Your task to perform on an android device: Add "razer huntsman" to the cart on walmart, then select checkout. Image 0: 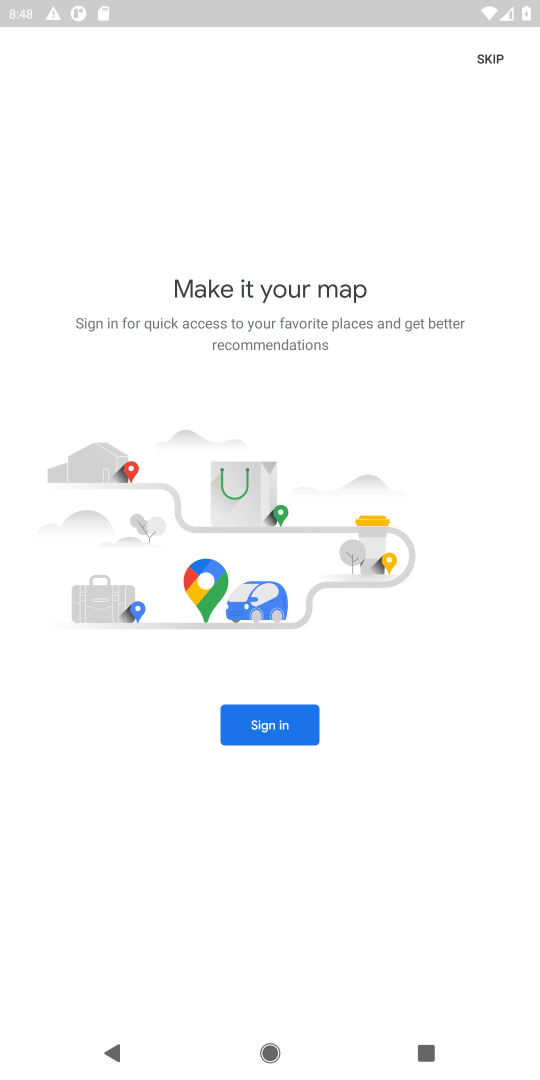
Step 0: press home button
Your task to perform on an android device: Add "razer huntsman" to the cart on walmart, then select checkout. Image 1: 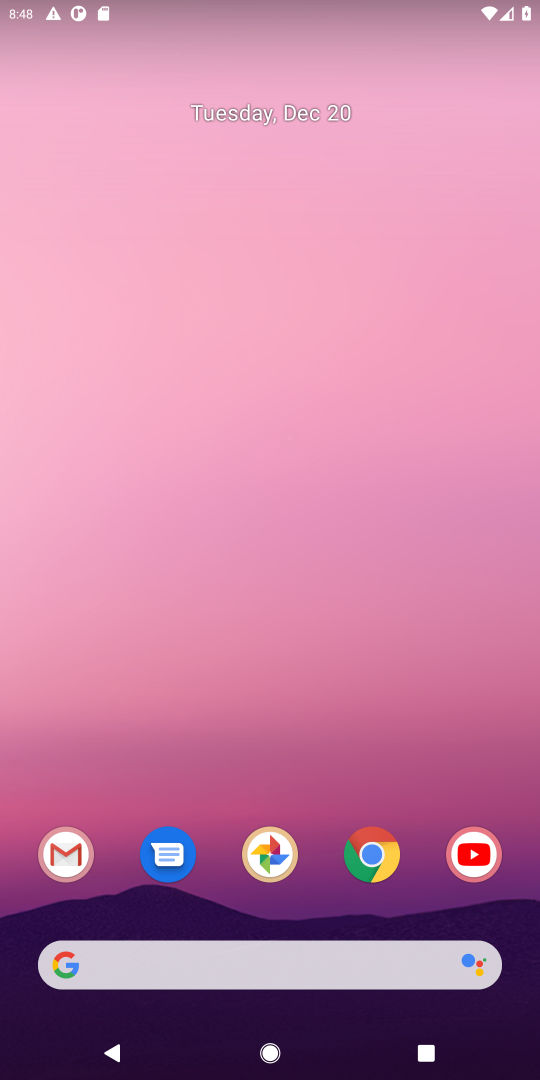
Step 1: click (366, 861)
Your task to perform on an android device: Add "razer huntsman" to the cart on walmart, then select checkout. Image 2: 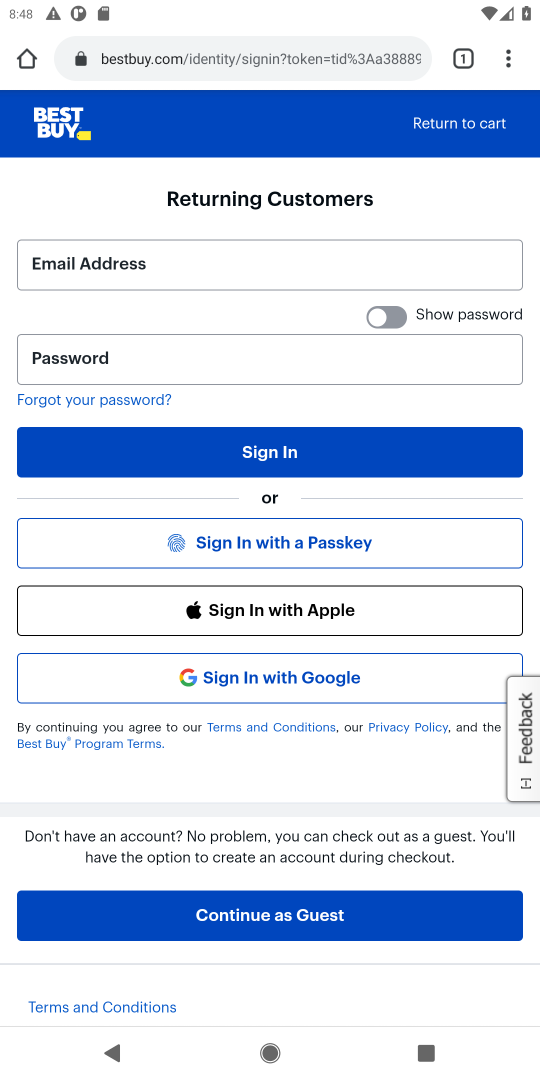
Step 2: click (235, 65)
Your task to perform on an android device: Add "razer huntsman" to the cart on walmart, then select checkout. Image 3: 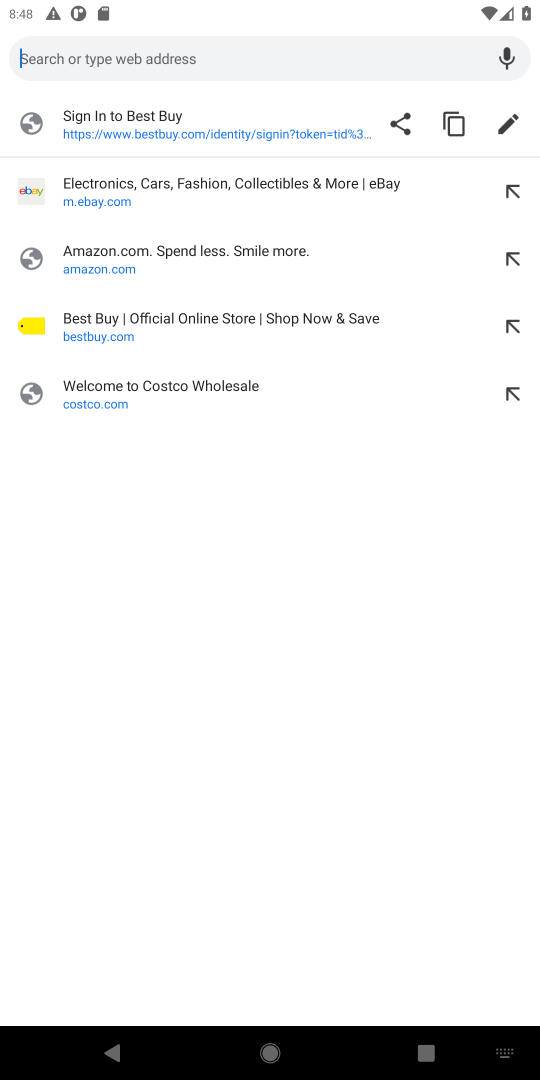
Step 3: type "walmart.com"
Your task to perform on an android device: Add "razer huntsman" to the cart on walmart, then select checkout. Image 4: 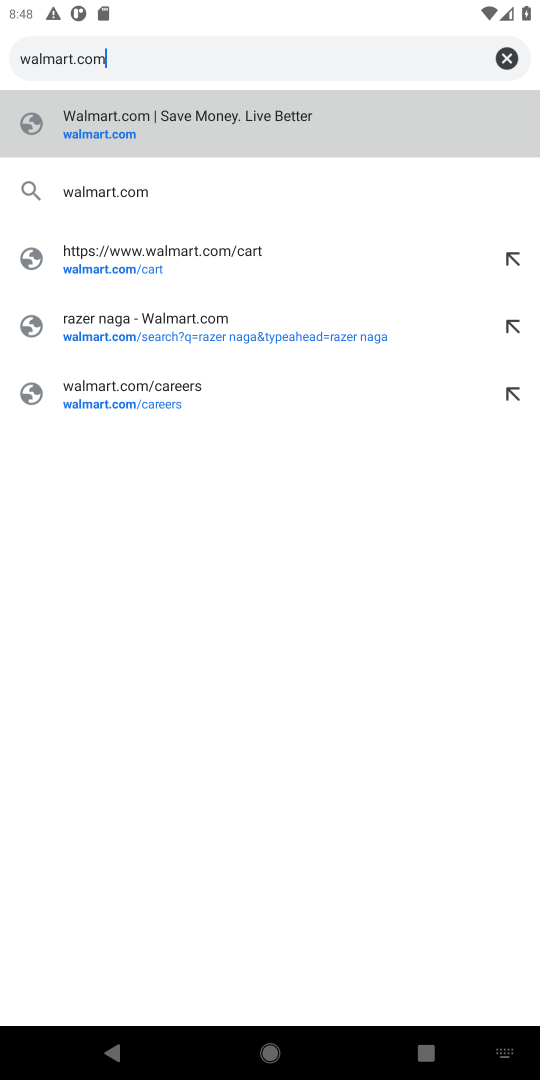
Step 4: click (110, 134)
Your task to perform on an android device: Add "razer huntsman" to the cart on walmart, then select checkout. Image 5: 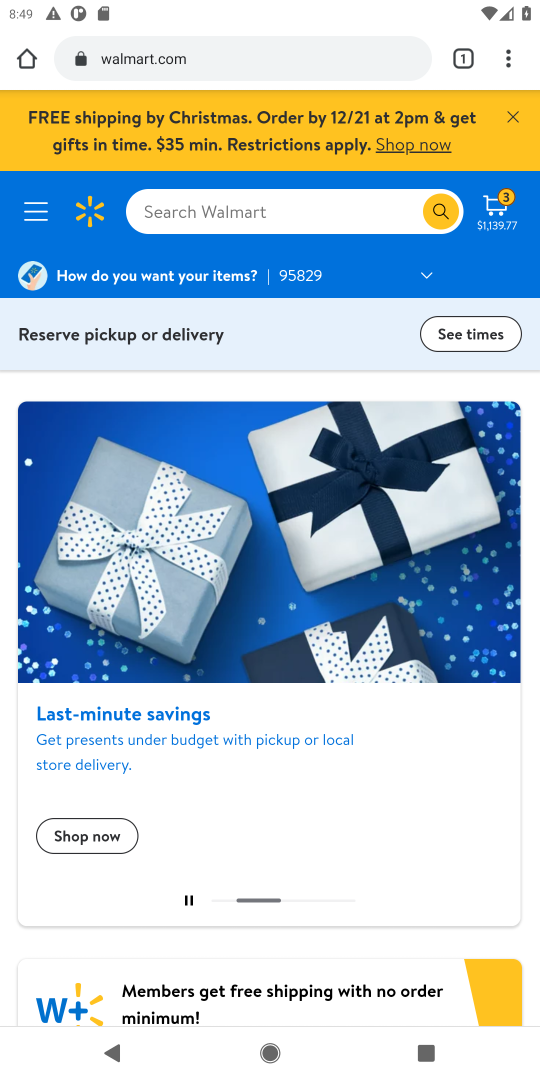
Step 5: click (189, 213)
Your task to perform on an android device: Add "razer huntsman" to the cart on walmart, then select checkout. Image 6: 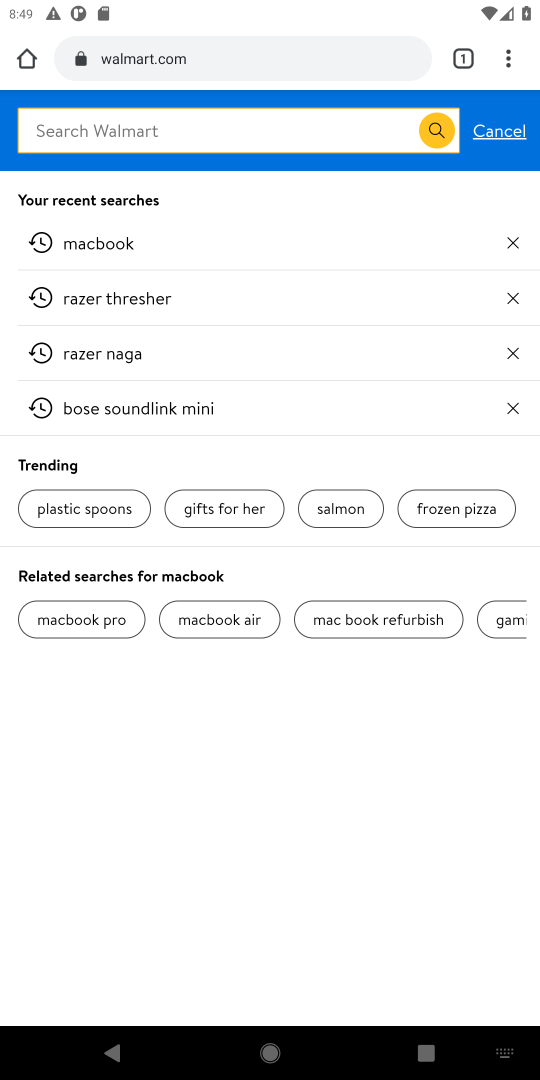
Step 6: type "razer huntsman"
Your task to perform on an android device: Add "razer huntsman" to the cart on walmart, then select checkout. Image 7: 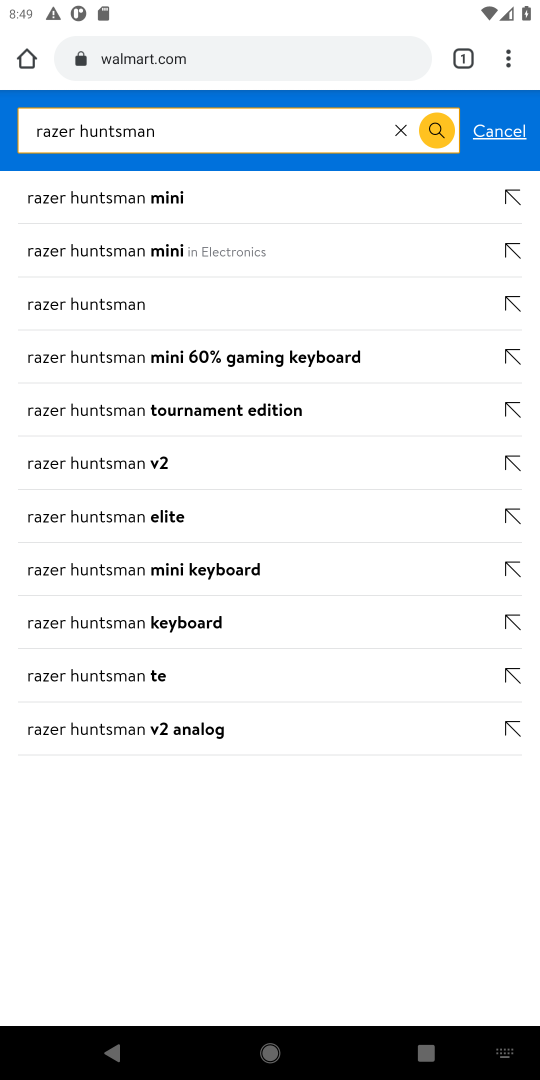
Step 7: click (91, 310)
Your task to perform on an android device: Add "razer huntsman" to the cart on walmart, then select checkout. Image 8: 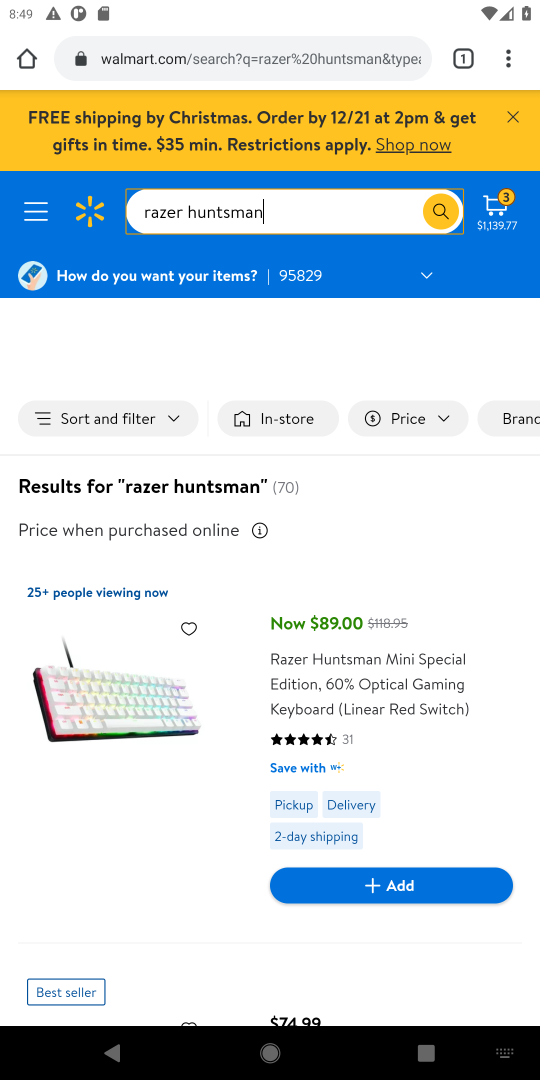
Step 8: click (368, 896)
Your task to perform on an android device: Add "razer huntsman" to the cart on walmart, then select checkout. Image 9: 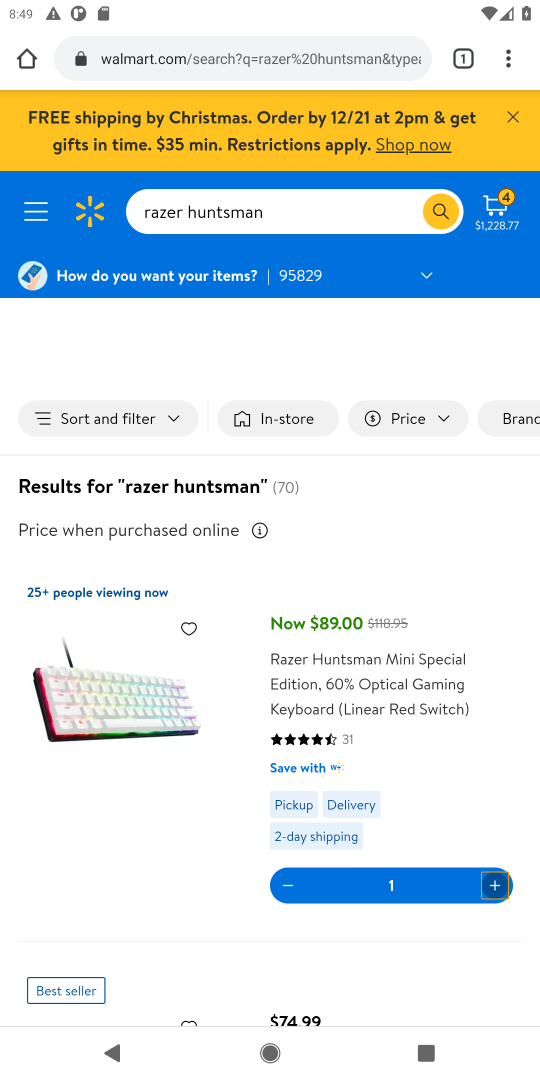
Step 9: click (488, 225)
Your task to perform on an android device: Add "razer huntsman" to the cart on walmart, then select checkout. Image 10: 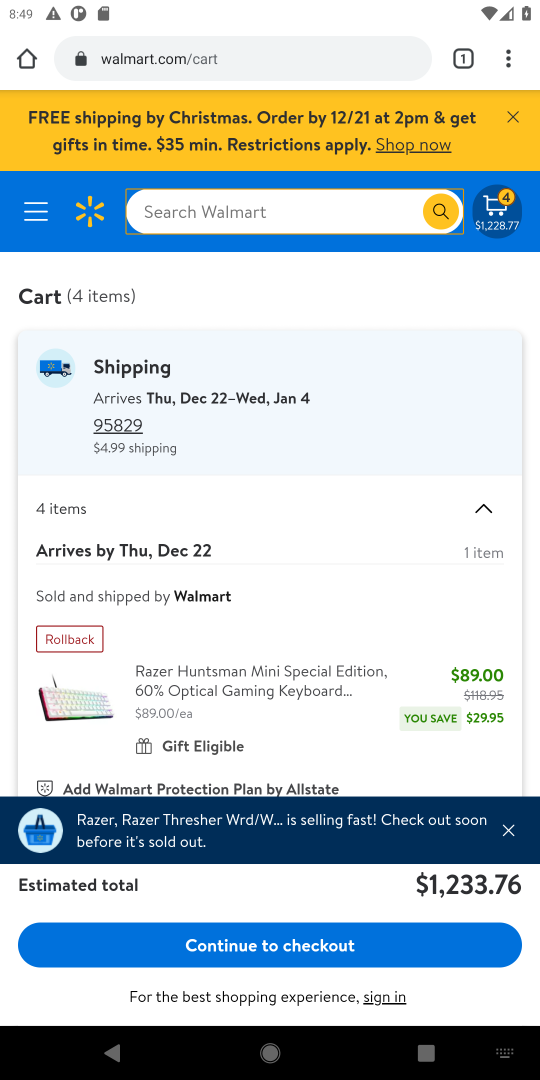
Step 10: click (248, 947)
Your task to perform on an android device: Add "razer huntsman" to the cart on walmart, then select checkout. Image 11: 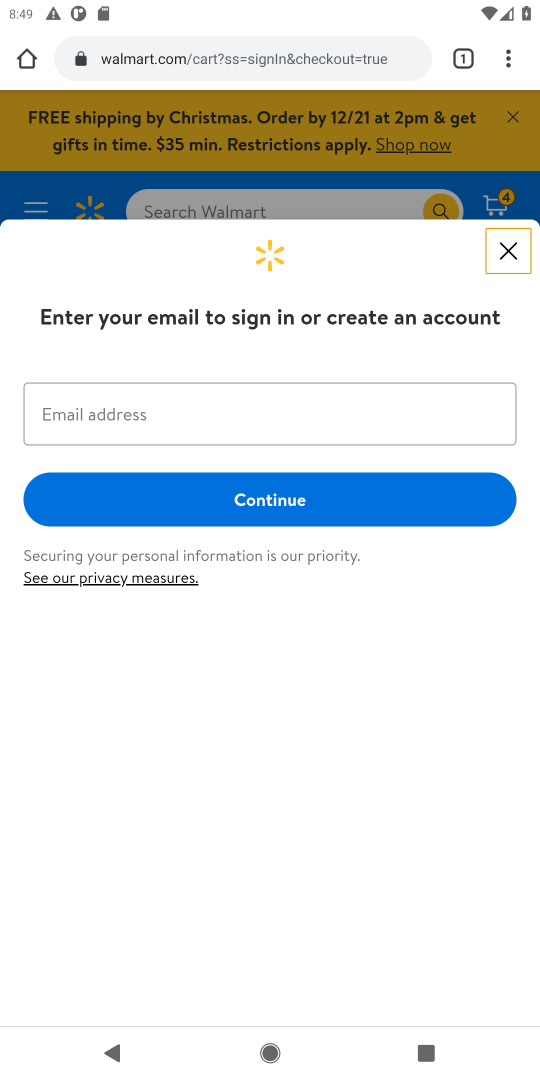
Step 11: task complete